Your task to perform on an android device: Go to sound settings Image 0: 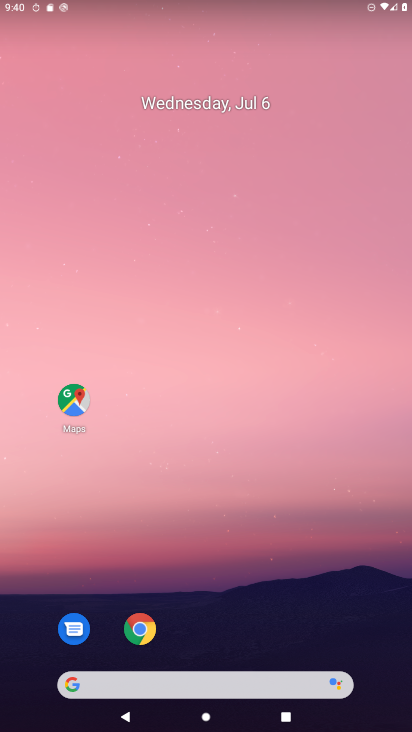
Step 0: drag from (238, 715) to (172, 4)
Your task to perform on an android device: Go to sound settings Image 1: 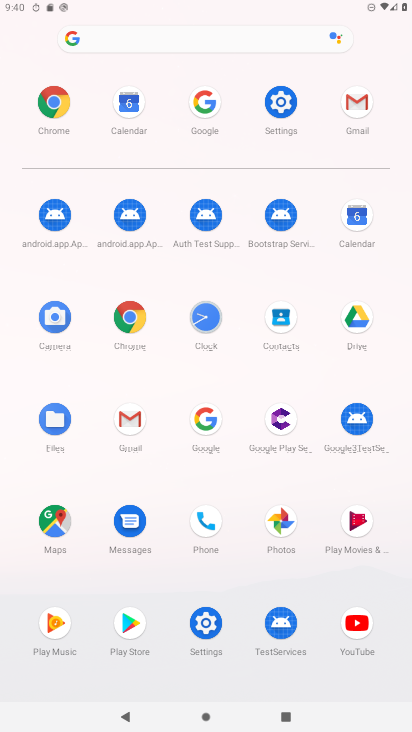
Step 1: click (283, 99)
Your task to perform on an android device: Go to sound settings Image 2: 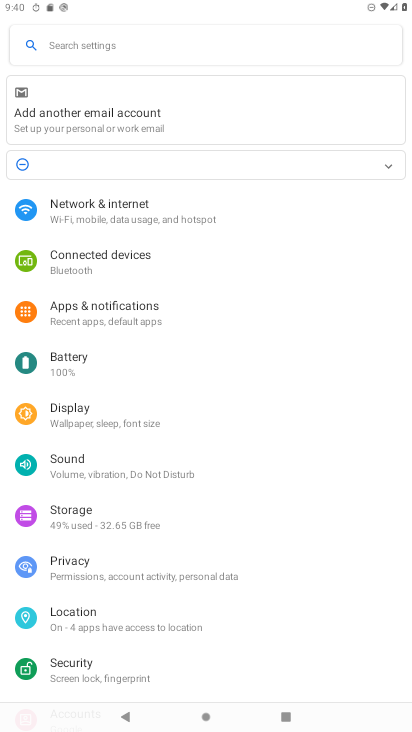
Step 2: click (68, 471)
Your task to perform on an android device: Go to sound settings Image 3: 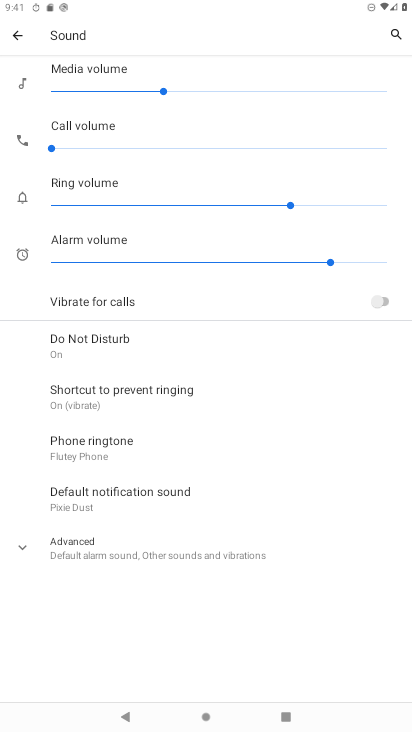
Step 3: task complete